Your task to perform on an android device: Go to Reddit.com Image 0: 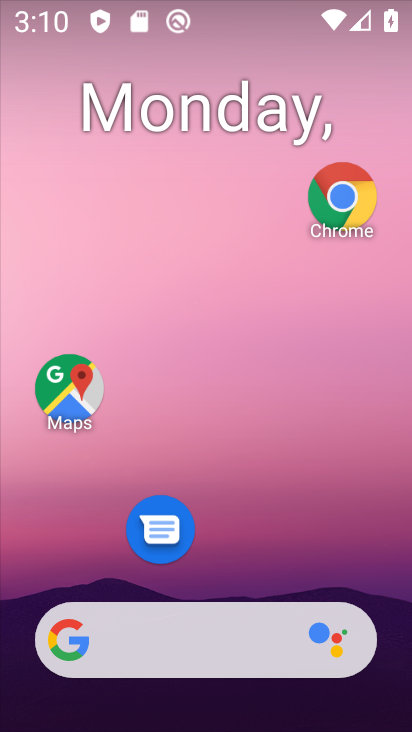
Step 0: drag from (164, 551) to (262, 107)
Your task to perform on an android device: Go to Reddit.com Image 1: 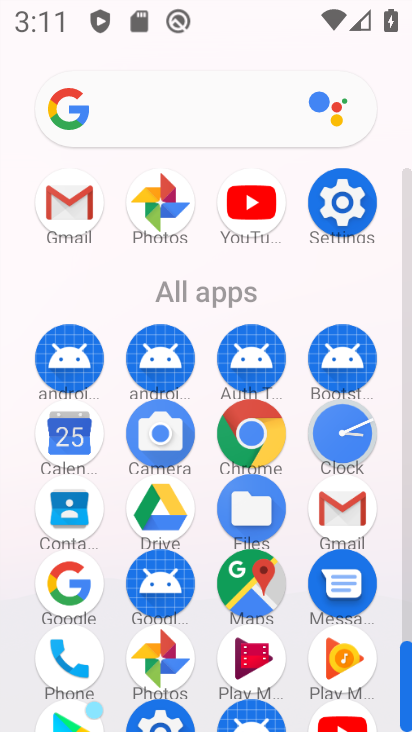
Step 1: click (86, 589)
Your task to perform on an android device: Go to Reddit.com Image 2: 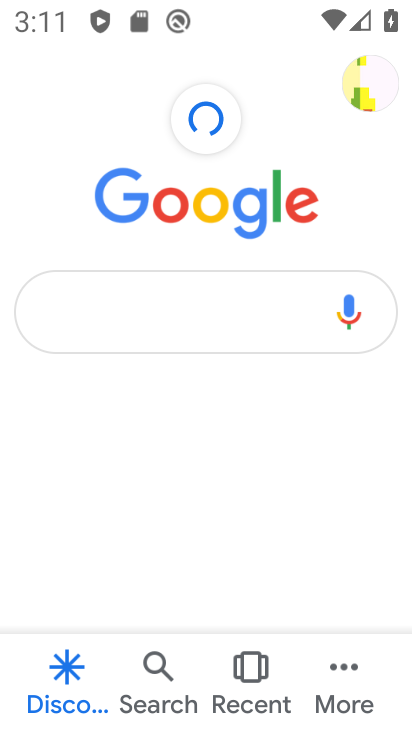
Step 2: click (183, 327)
Your task to perform on an android device: Go to Reddit.com Image 3: 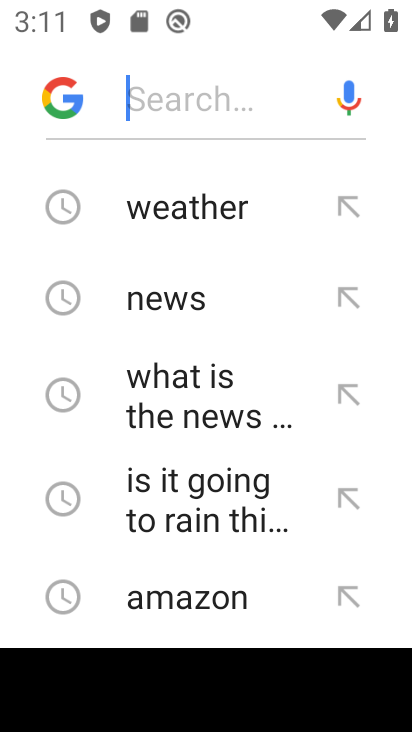
Step 3: type "Reddit.com"
Your task to perform on an android device: Go to Reddit.com Image 4: 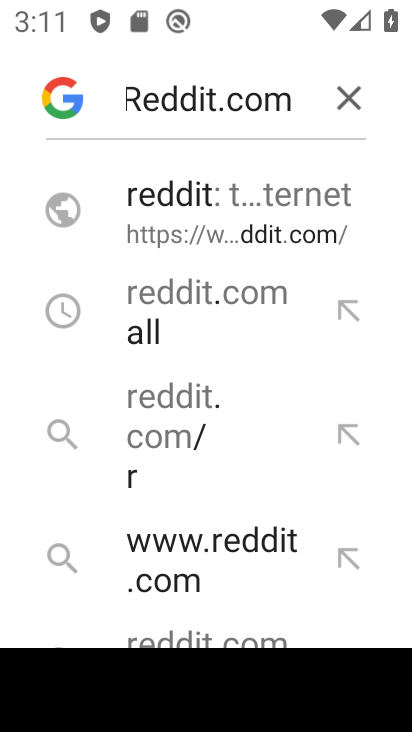
Step 4: click (278, 230)
Your task to perform on an android device: Go to Reddit.com Image 5: 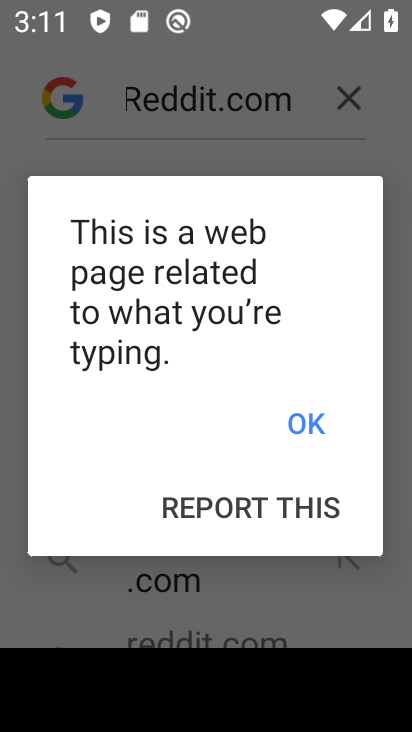
Step 5: click (301, 428)
Your task to perform on an android device: Go to Reddit.com Image 6: 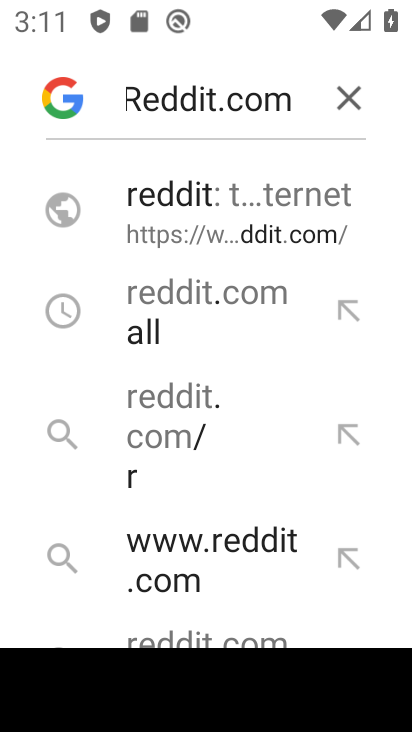
Step 6: click (284, 226)
Your task to perform on an android device: Go to Reddit.com Image 7: 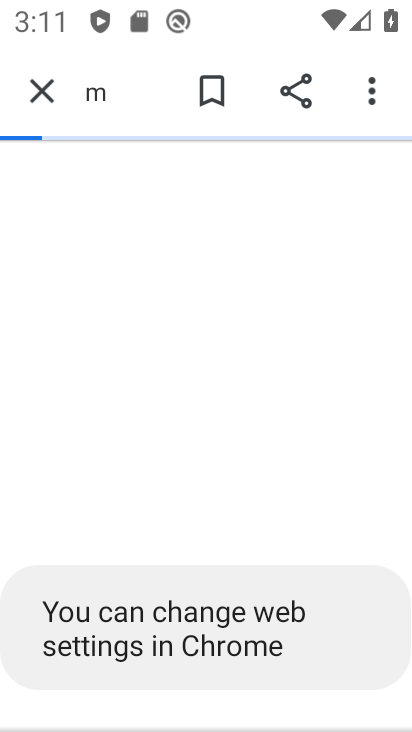
Step 7: click (340, 221)
Your task to perform on an android device: Go to Reddit.com Image 8: 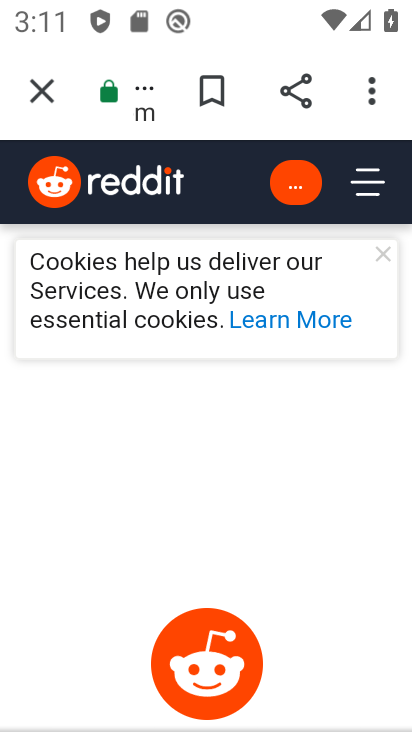
Step 8: task complete